Your task to perform on an android device: Open Reddit.com Image 0: 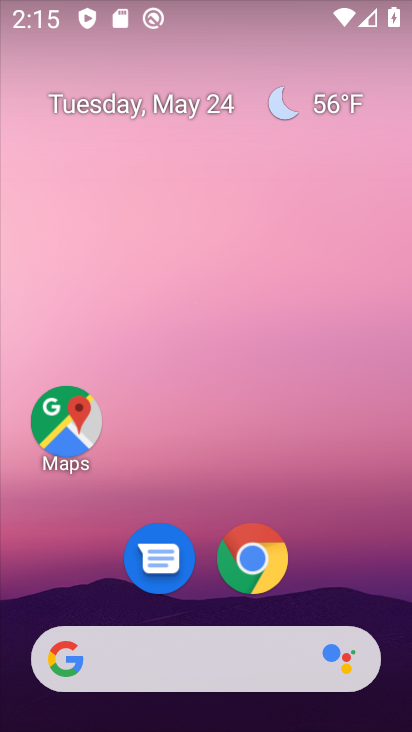
Step 0: click (183, 656)
Your task to perform on an android device: Open Reddit.com Image 1: 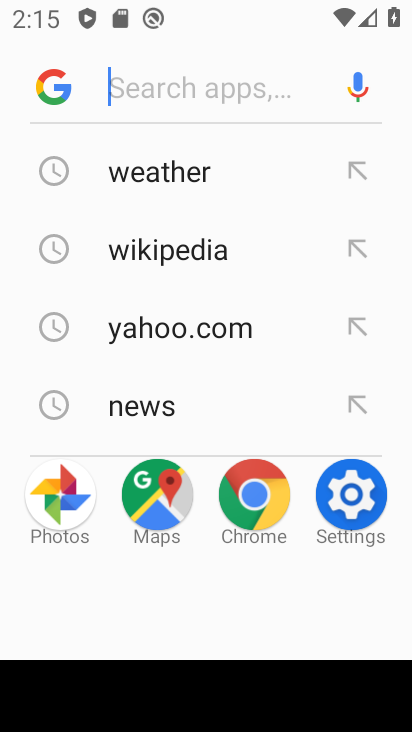
Step 1: type "Reddit.com"
Your task to perform on an android device: Open Reddit.com Image 2: 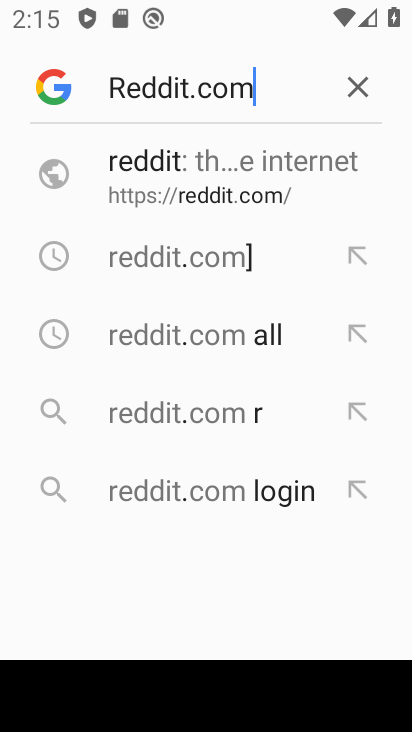
Step 2: click (190, 181)
Your task to perform on an android device: Open Reddit.com Image 3: 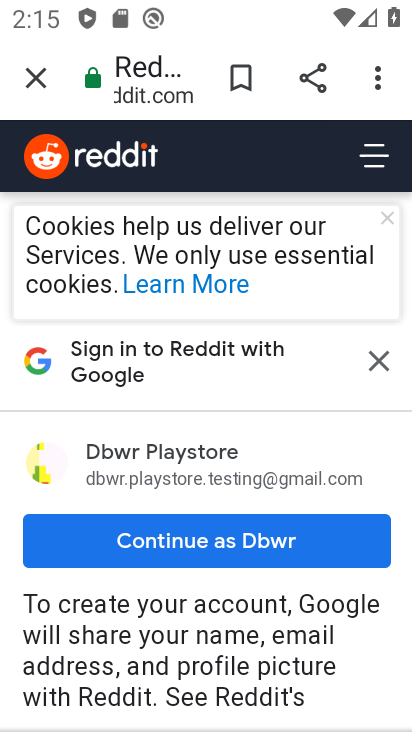
Step 3: click (379, 369)
Your task to perform on an android device: Open Reddit.com Image 4: 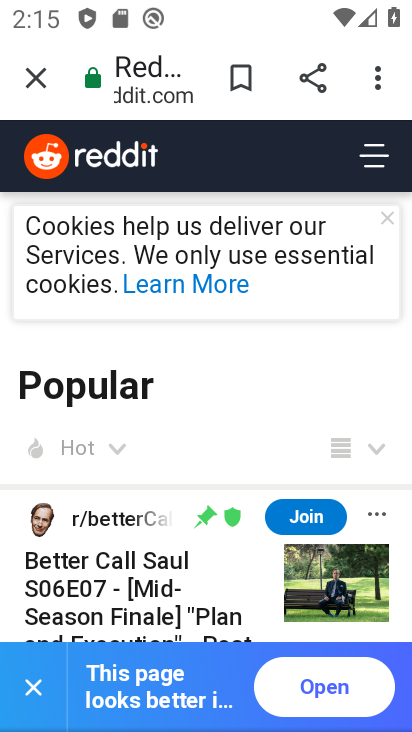
Step 4: click (34, 688)
Your task to perform on an android device: Open Reddit.com Image 5: 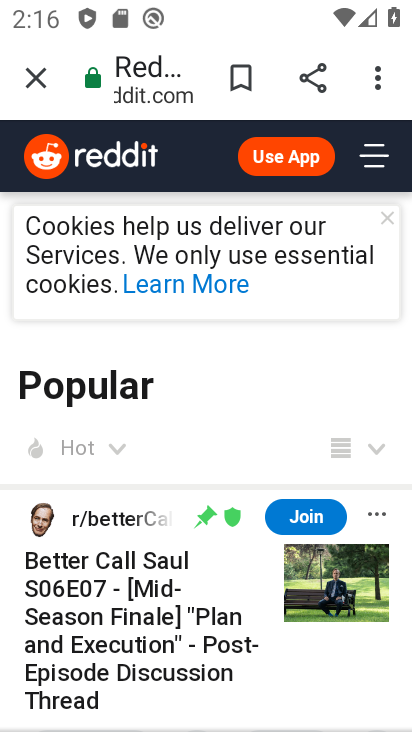
Step 5: task complete